Your task to perform on an android device: What's on my calendar tomorrow? Image 0: 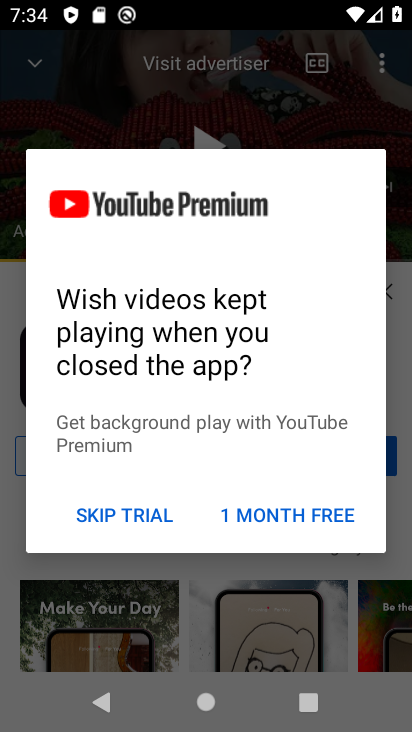
Step 0: press home button
Your task to perform on an android device: What's on my calendar tomorrow? Image 1: 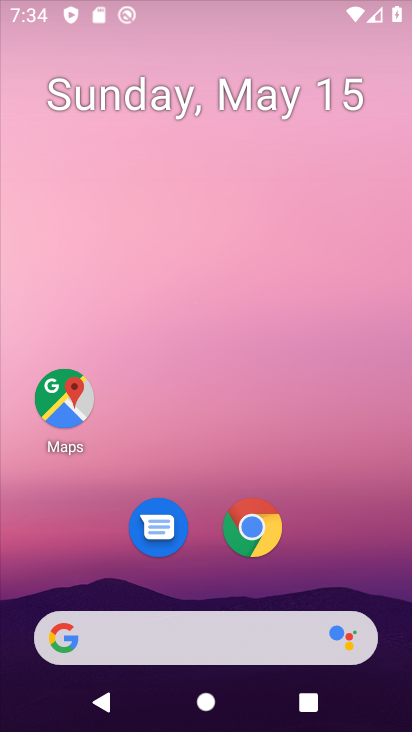
Step 1: drag from (185, 557) to (251, 36)
Your task to perform on an android device: What's on my calendar tomorrow? Image 2: 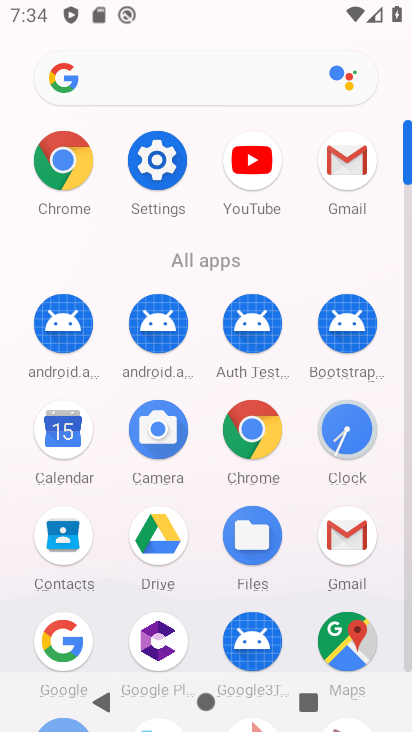
Step 2: click (72, 445)
Your task to perform on an android device: What's on my calendar tomorrow? Image 3: 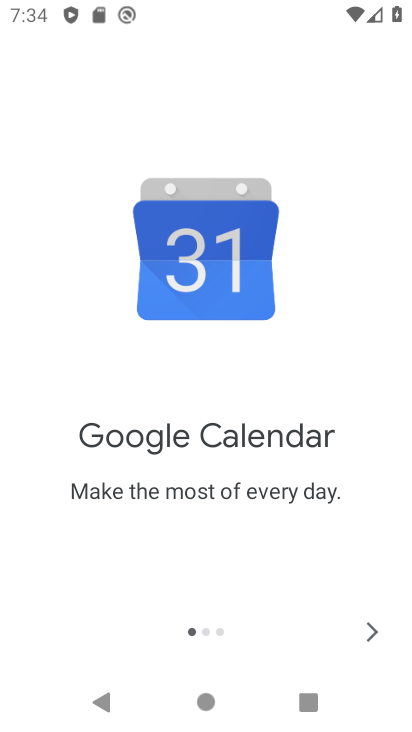
Step 3: click (370, 624)
Your task to perform on an android device: What's on my calendar tomorrow? Image 4: 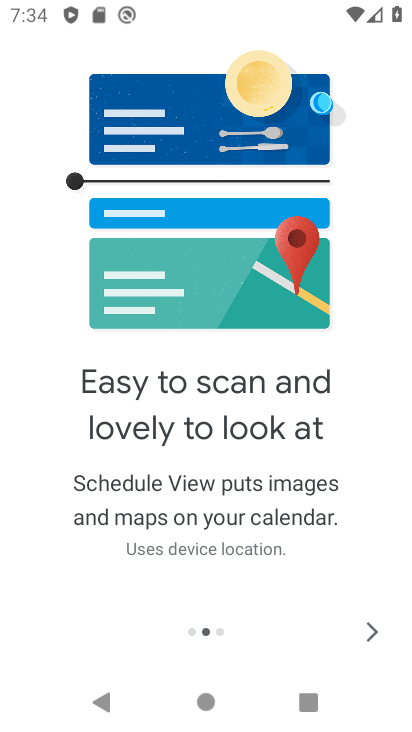
Step 4: click (370, 624)
Your task to perform on an android device: What's on my calendar tomorrow? Image 5: 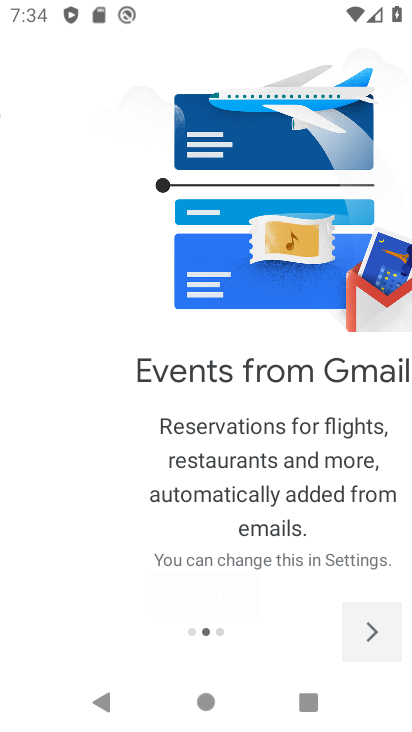
Step 5: click (370, 624)
Your task to perform on an android device: What's on my calendar tomorrow? Image 6: 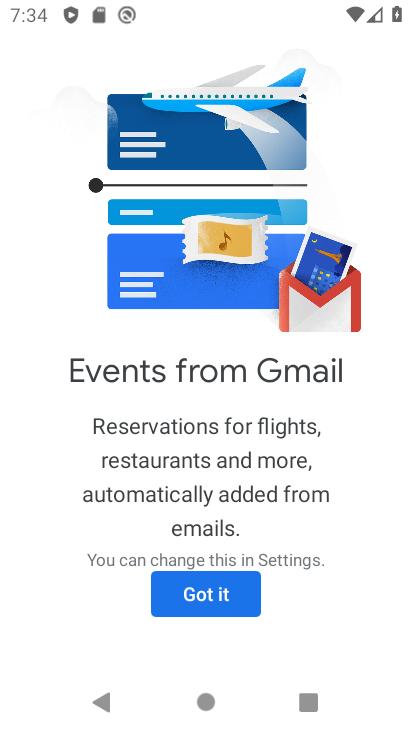
Step 6: click (201, 579)
Your task to perform on an android device: What's on my calendar tomorrow? Image 7: 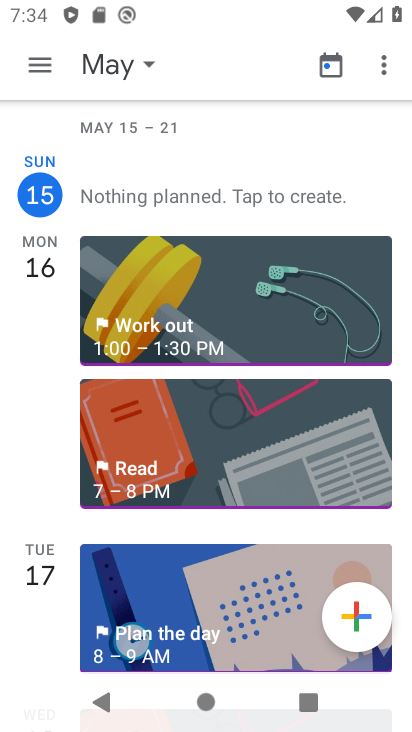
Step 7: click (52, 60)
Your task to perform on an android device: What's on my calendar tomorrow? Image 8: 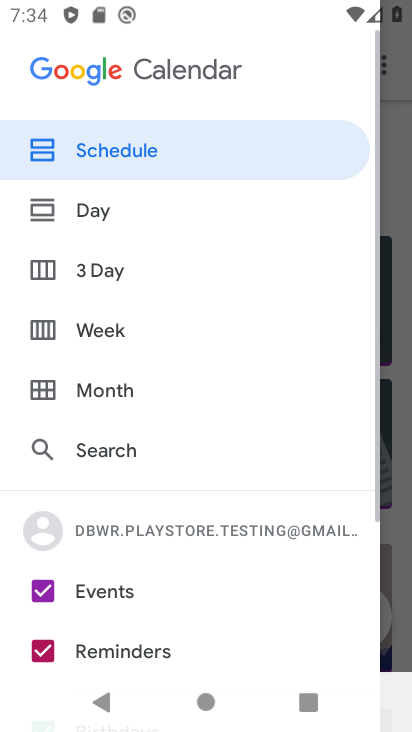
Step 8: click (98, 274)
Your task to perform on an android device: What's on my calendar tomorrow? Image 9: 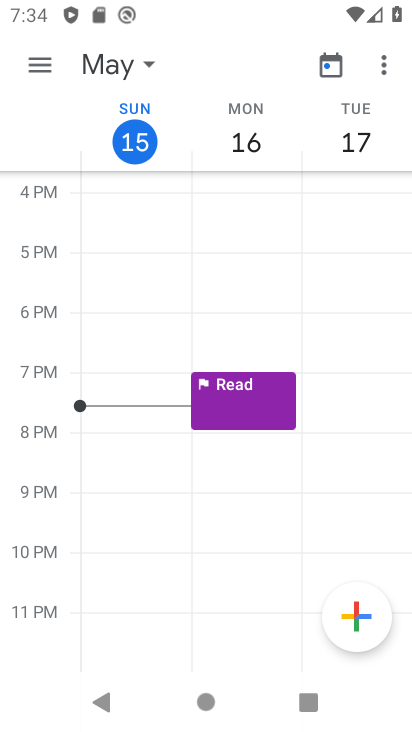
Step 9: task complete